Your task to perform on an android device: Open display settings Image 0: 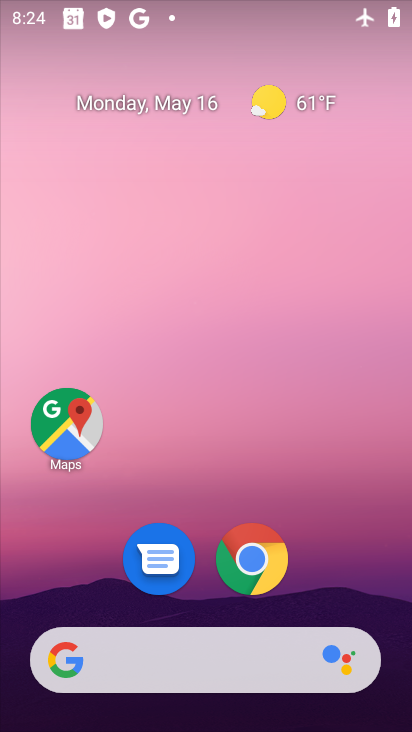
Step 0: drag from (166, 514) to (237, 77)
Your task to perform on an android device: Open display settings Image 1: 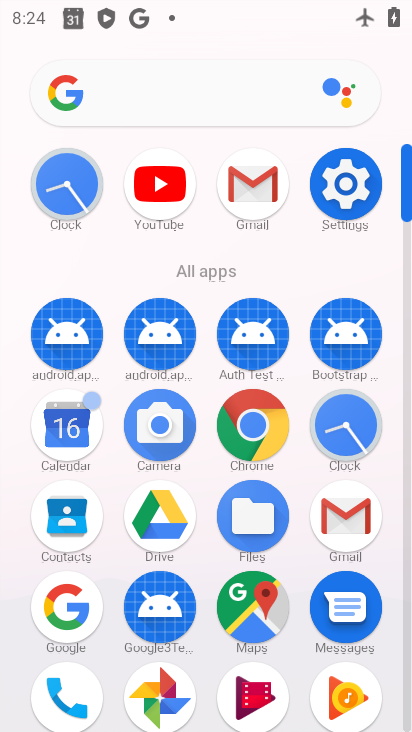
Step 1: click (351, 186)
Your task to perform on an android device: Open display settings Image 2: 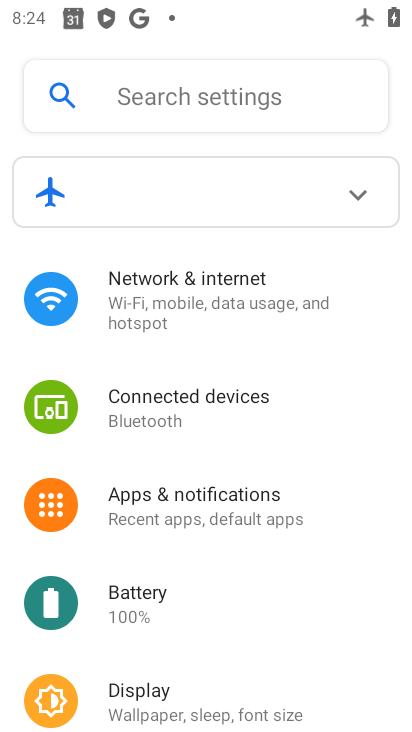
Step 2: click (136, 687)
Your task to perform on an android device: Open display settings Image 3: 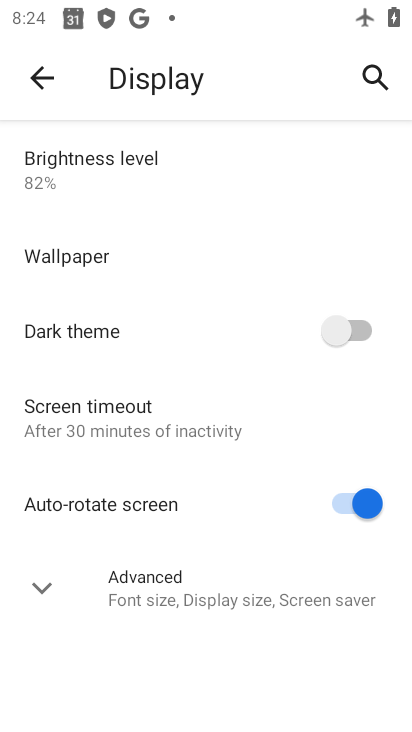
Step 3: task complete